Your task to perform on an android device: change notifications settings Image 0: 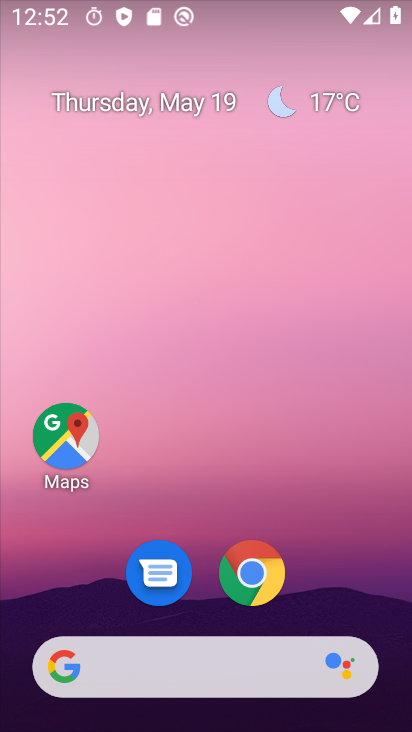
Step 0: drag from (217, 627) to (266, 91)
Your task to perform on an android device: change notifications settings Image 1: 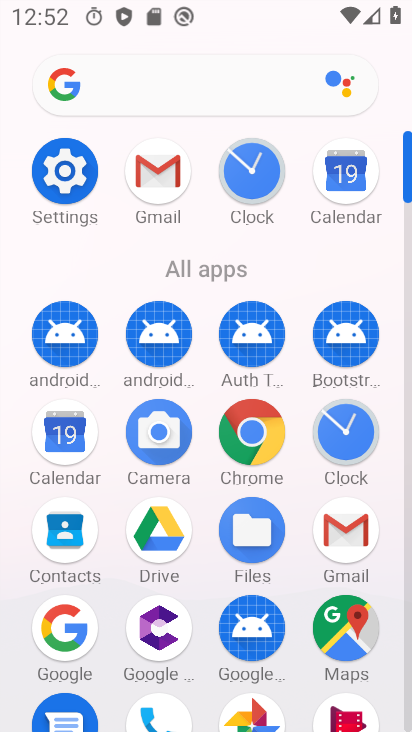
Step 1: click (58, 163)
Your task to perform on an android device: change notifications settings Image 2: 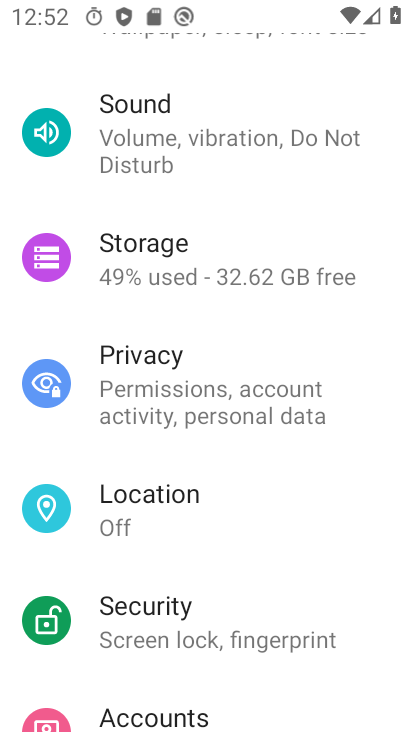
Step 2: drag from (278, 224) to (175, 731)
Your task to perform on an android device: change notifications settings Image 3: 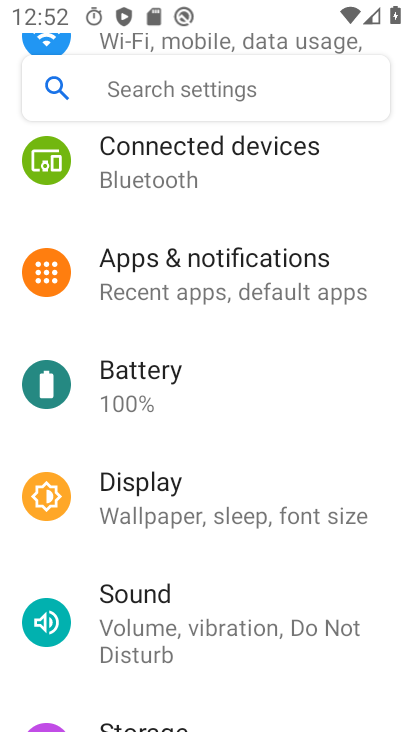
Step 3: click (168, 281)
Your task to perform on an android device: change notifications settings Image 4: 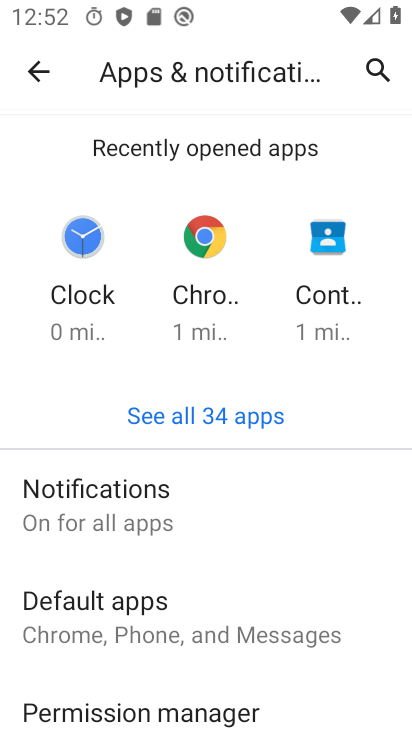
Step 4: drag from (235, 354) to (285, 180)
Your task to perform on an android device: change notifications settings Image 5: 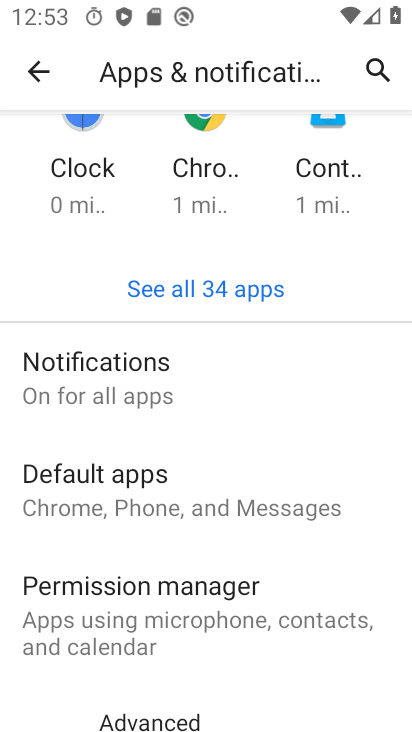
Step 5: click (162, 382)
Your task to perform on an android device: change notifications settings Image 6: 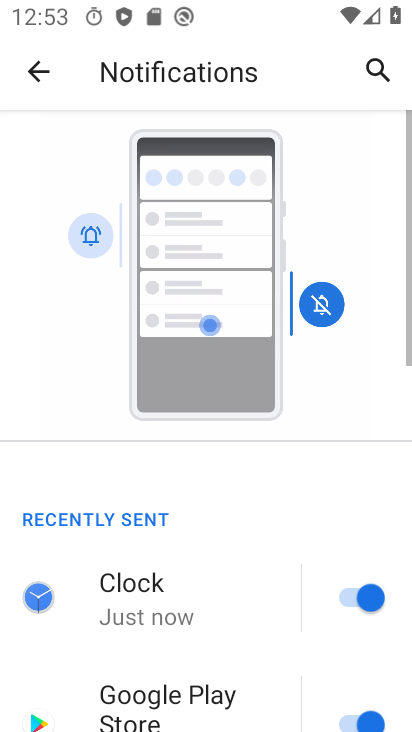
Step 6: drag from (136, 656) to (280, 164)
Your task to perform on an android device: change notifications settings Image 7: 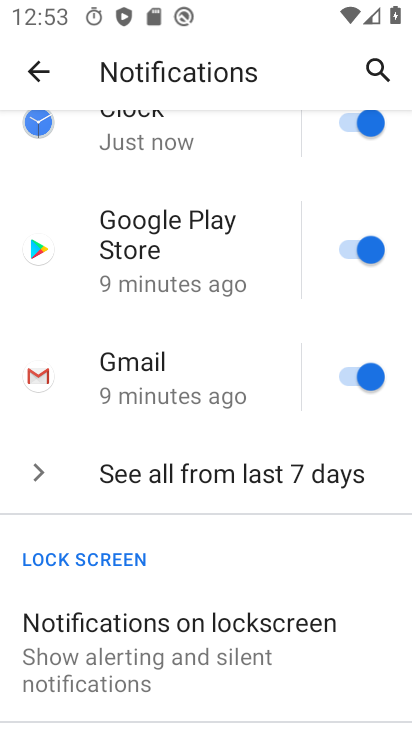
Step 7: drag from (204, 630) to (291, 128)
Your task to perform on an android device: change notifications settings Image 8: 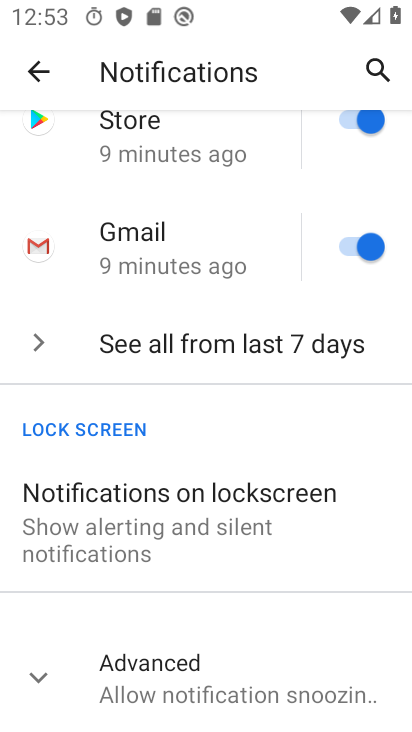
Step 8: click (177, 670)
Your task to perform on an android device: change notifications settings Image 9: 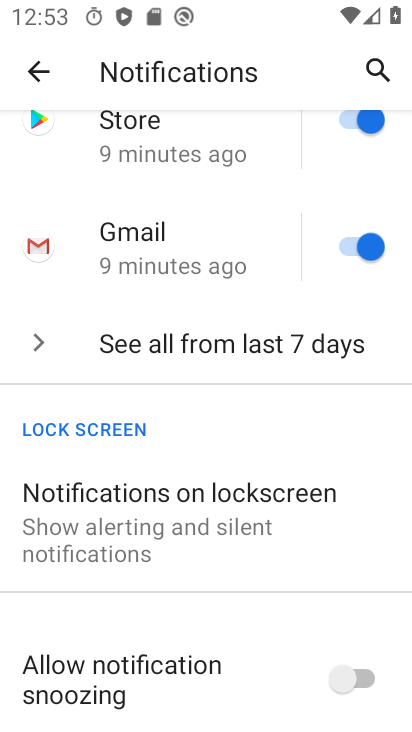
Step 9: drag from (177, 670) to (239, 336)
Your task to perform on an android device: change notifications settings Image 10: 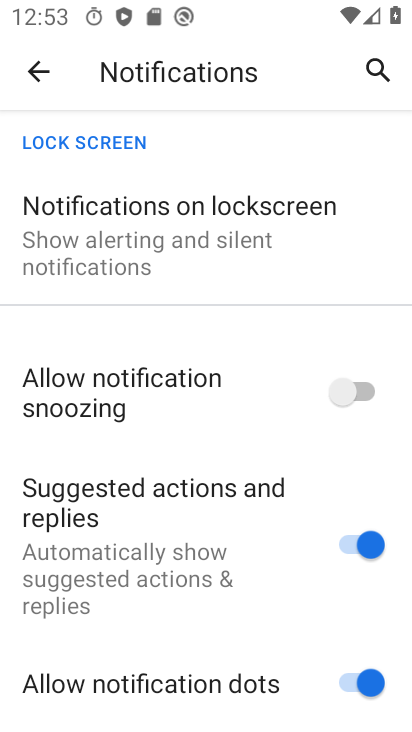
Step 10: click (364, 391)
Your task to perform on an android device: change notifications settings Image 11: 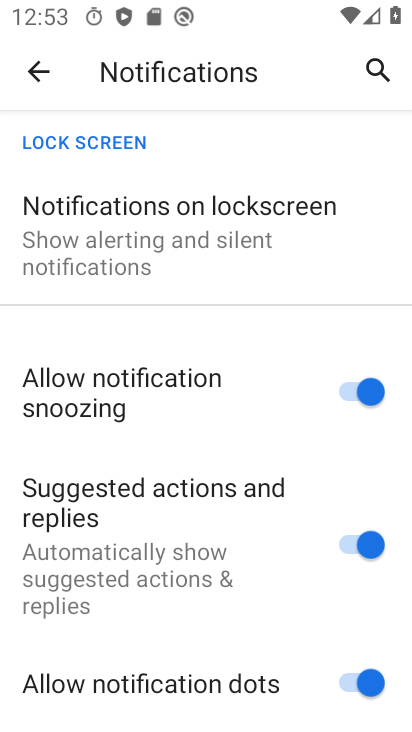
Step 11: task complete